Your task to perform on an android device: change the clock display to digital Image 0: 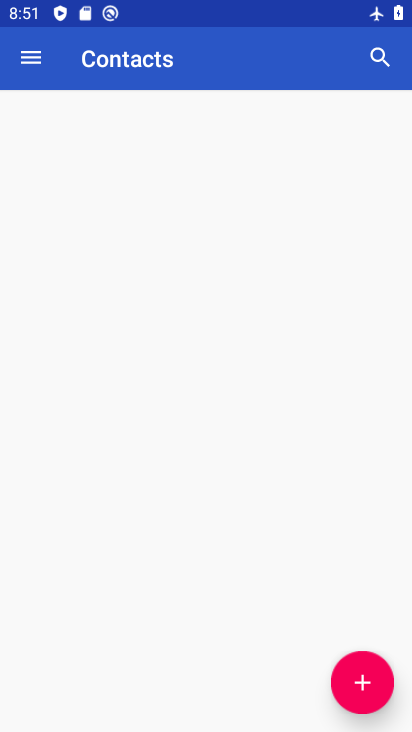
Step 0: press home button
Your task to perform on an android device: change the clock display to digital Image 1: 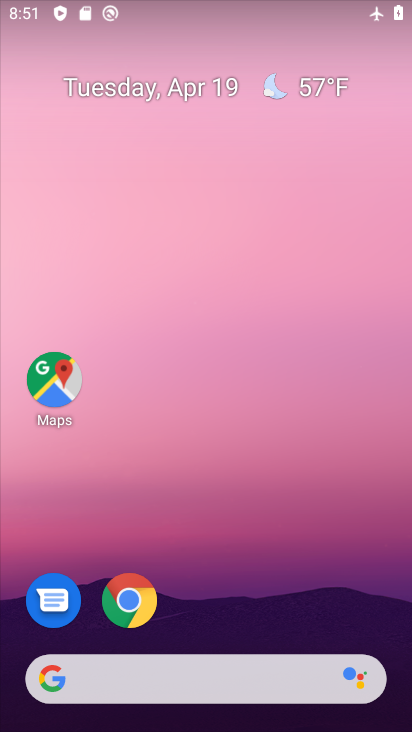
Step 1: drag from (352, 565) to (375, 136)
Your task to perform on an android device: change the clock display to digital Image 2: 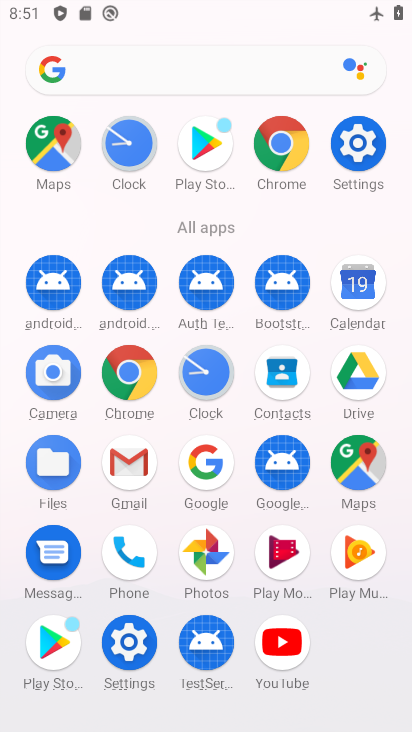
Step 2: click (208, 377)
Your task to perform on an android device: change the clock display to digital Image 3: 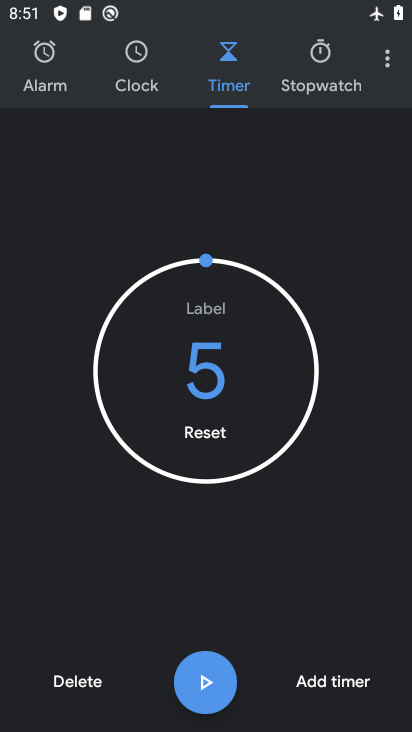
Step 3: click (388, 58)
Your task to perform on an android device: change the clock display to digital Image 4: 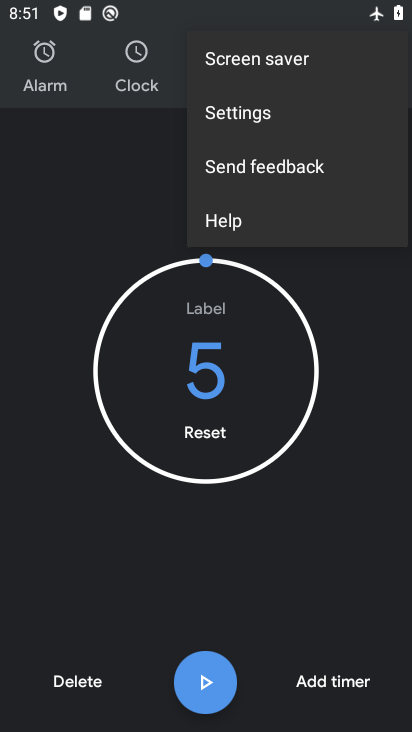
Step 4: click (236, 114)
Your task to perform on an android device: change the clock display to digital Image 5: 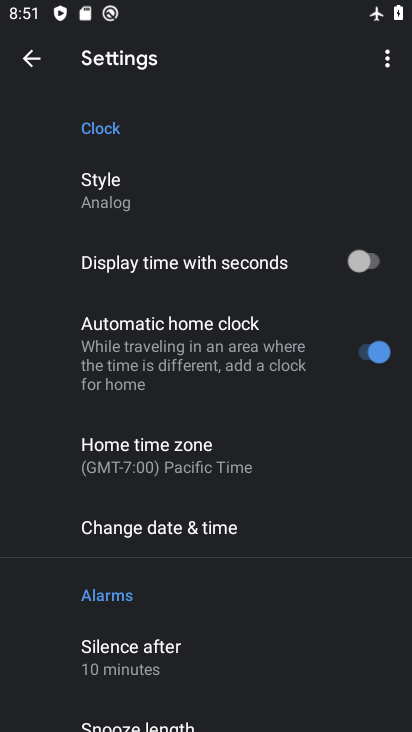
Step 5: drag from (320, 466) to (317, 237)
Your task to perform on an android device: change the clock display to digital Image 6: 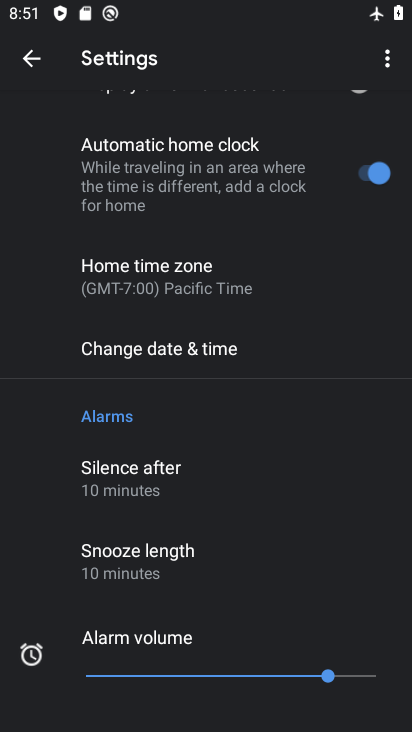
Step 6: drag from (309, 551) to (329, 225)
Your task to perform on an android device: change the clock display to digital Image 7: 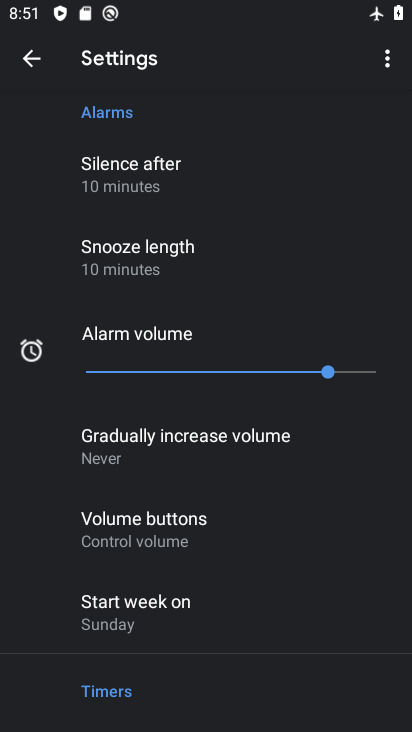
Step 7: drag from (317, 580) to (342, 245)
Your task to perform on an android device: change the clock display to digital Image 8: 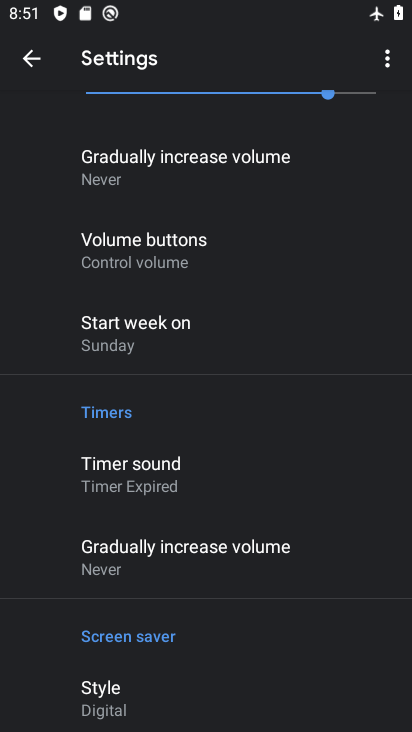
Step 8: drag from (365, 231) to (345, 506)
Your task to perform on an android device: change the clock display to digital Image 9: 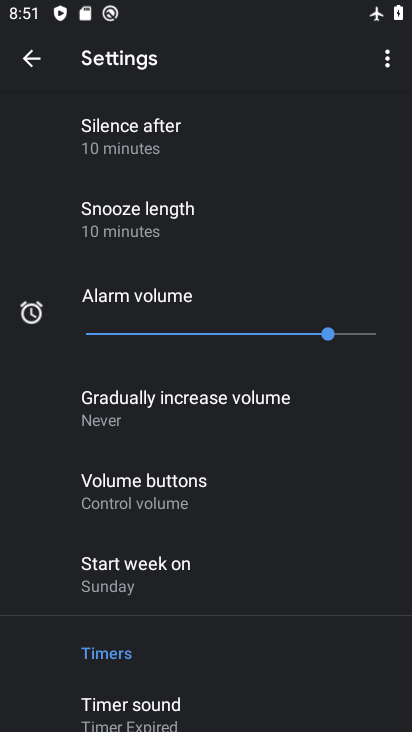
Step 9: drag from (368, 215) to (349, 536)
Your task to perform on an android device: change the clock display to digital Image 10: 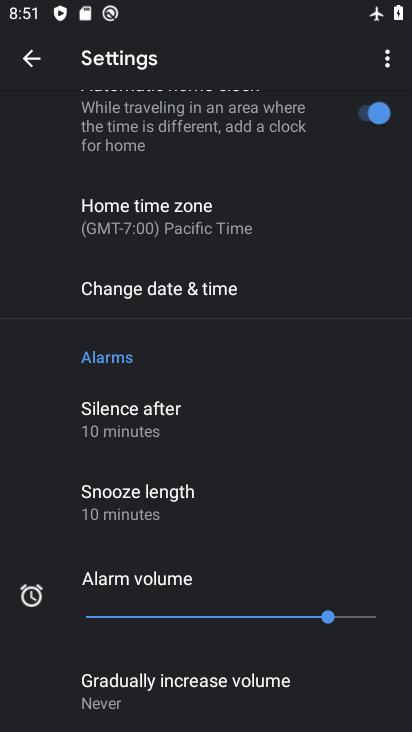
Step 10: drag from (358, 224) to (342, 512)
Your task to perform on an android device: change the clock display to digital Image 11: 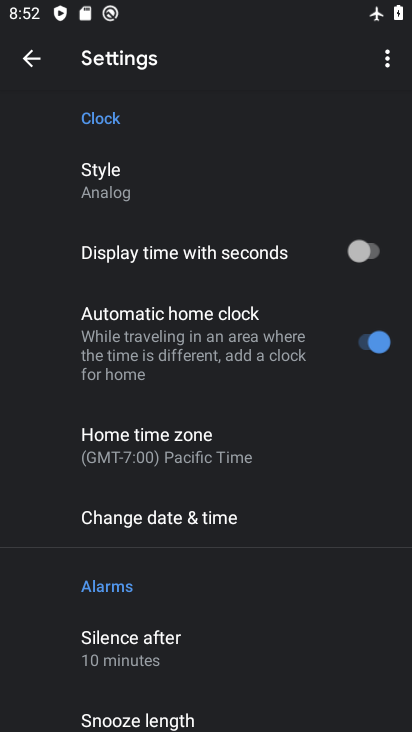
Step 11: drag from (312, 201) to (313, 463)
Your task to perform on an android device: change the clock display to digital Image 12: 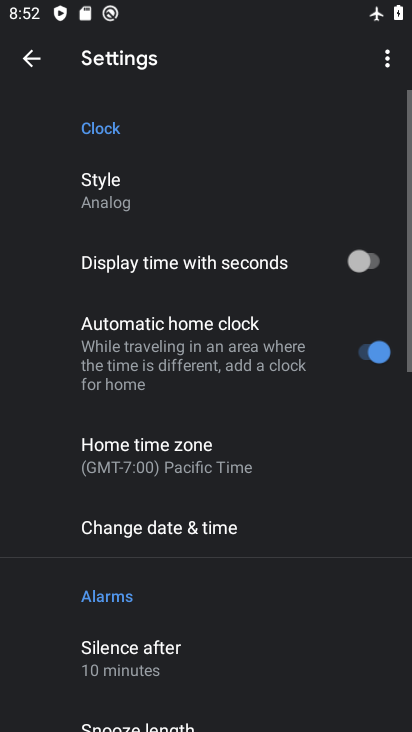
Step 12: click (124, 186)
Your task to perform on an android device: change the clock display to digital Image 13: 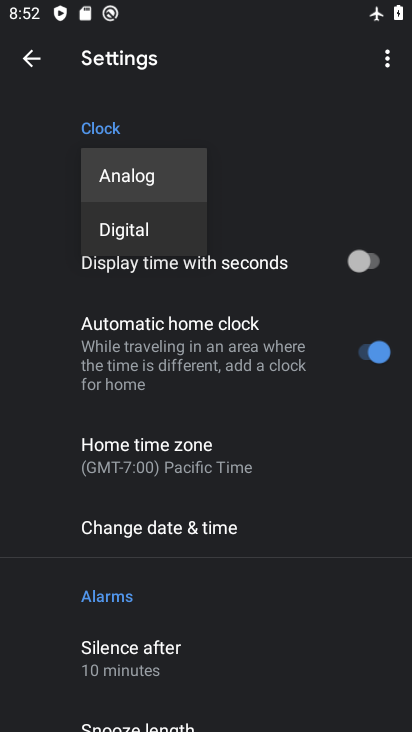
Step 13: click (133, 231)
Your task to perform on an android device: change the clock display to digital Image 14: 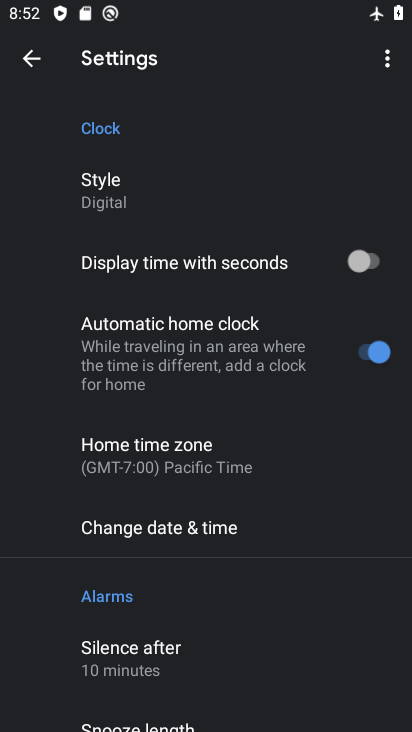
Step 14: task complete